Your task to perform on an android device: add a contact in the contacts app Image 0: 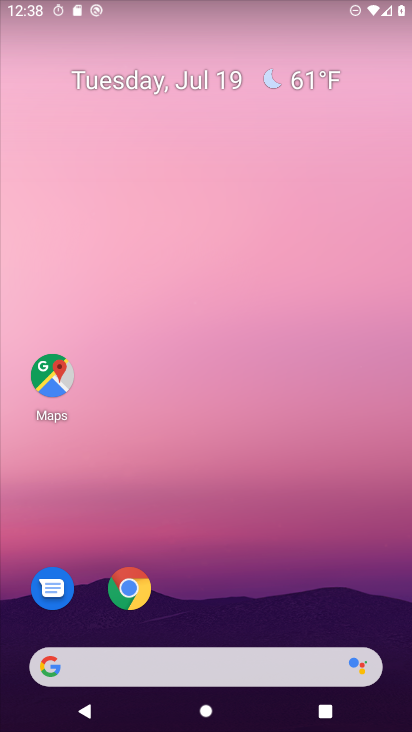
Step 0: drag from (343, 593) to (311, 152)
Your task to perform on an android device: add a contact in the contacts app Image 1: 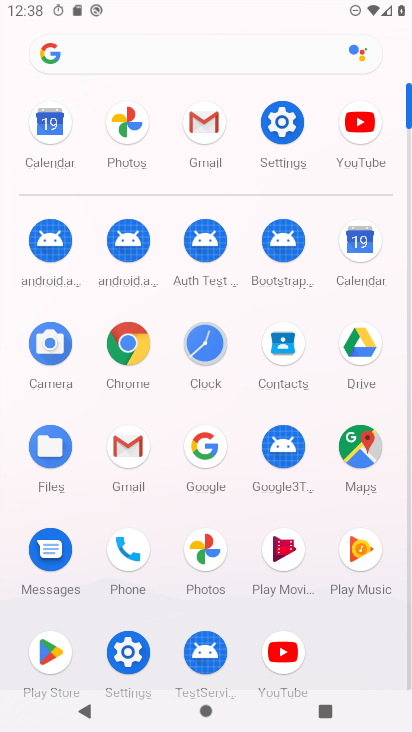
Step 1: click (276, 346)
Your task to perform on an android device: add a contact in the contacts app Image 2: 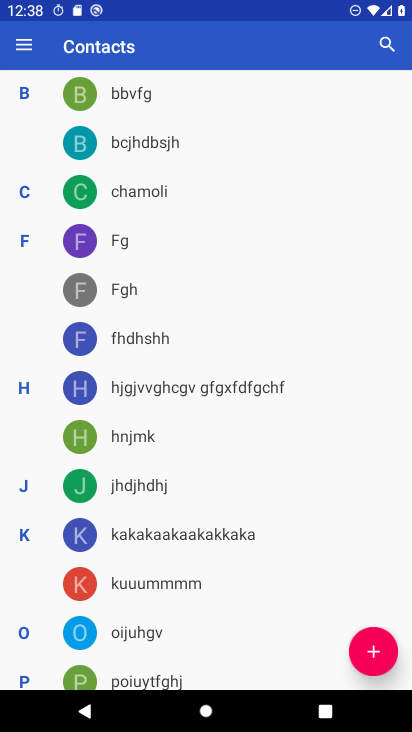
Step 2: click (378, 655)
Your task to perform on an android device: add a contact in the contacts app Image 3: 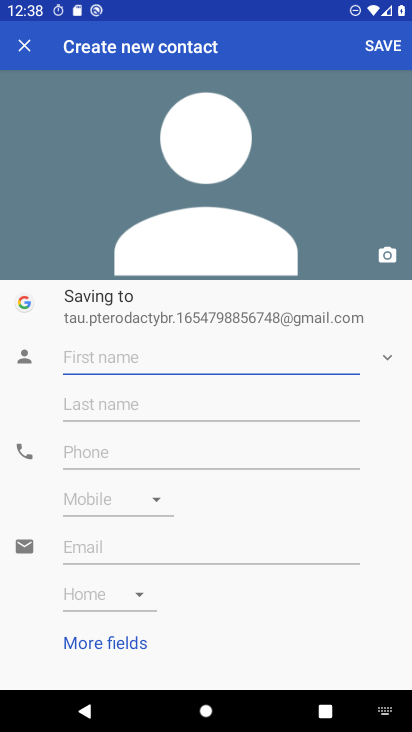
Step 3: type "yuiokjhg"
Your task to perform on an android device: add a contact in the contacts app Image 4: 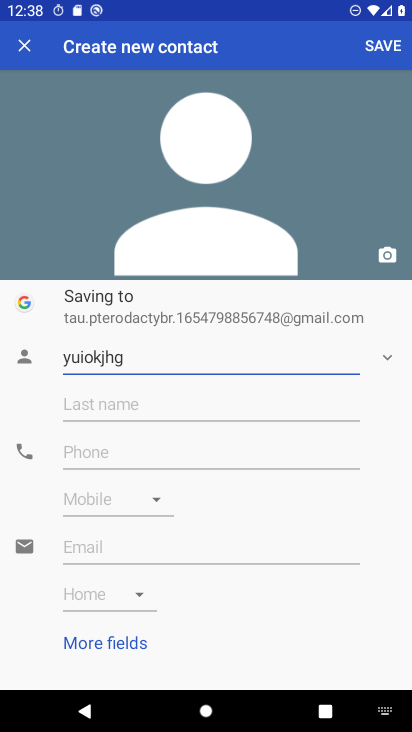
Step 4: click (79, 455)
Your task to perform on an android device: add a contact in the contacts app Image 5: 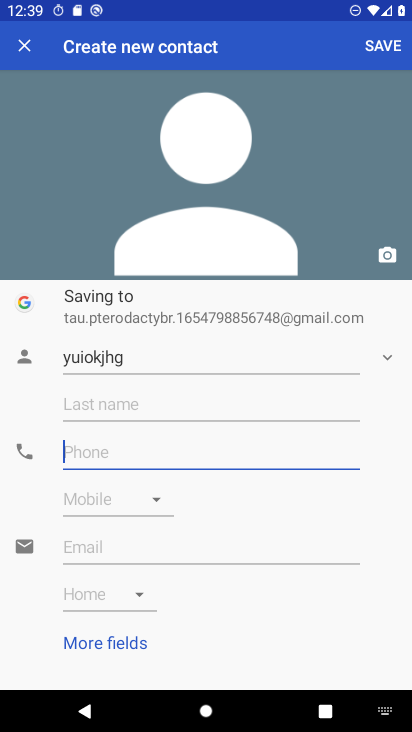
Step 5: type "2345667897"
Your task to perform on an android device: add a contact in the contacts app Image 6: 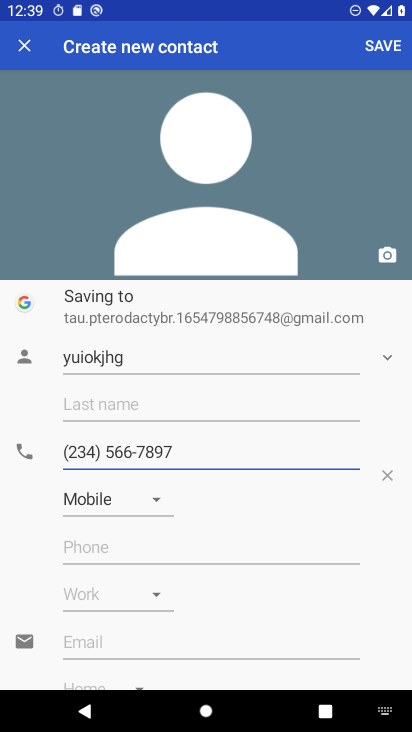
Step 6: click (394, 47)
Your task to perform on an android device: add a contact in the contacts app Image 7: 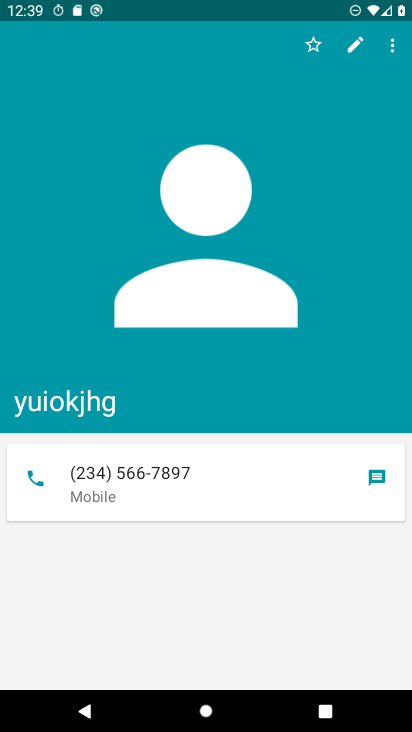
Step 7: task complete